Your task to perform on an android device: Do I have any events today? Image 0: 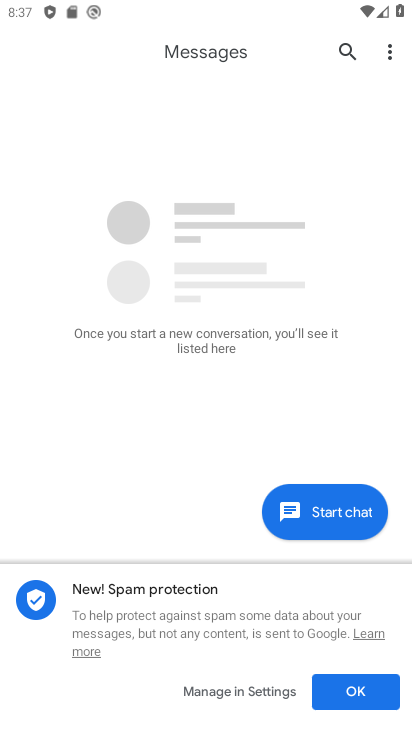
Step 0: press back button
Your task to perform on an android device: Do I have any events today? Image 1: 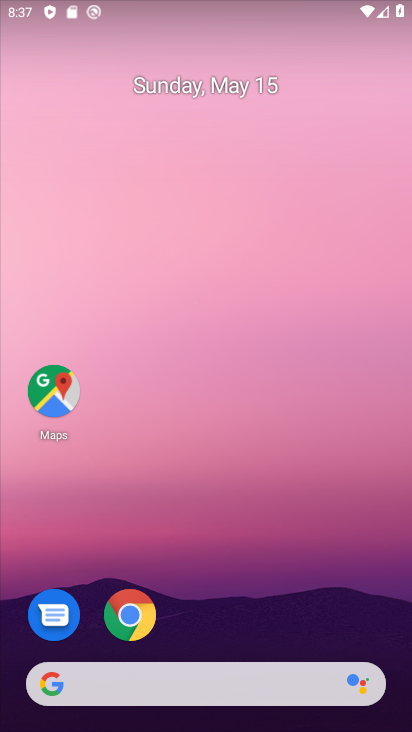
Step 1: drag from (259, 564) to (229, 5)
Your task to perform on an android device: Do I have any events today? Image 2: 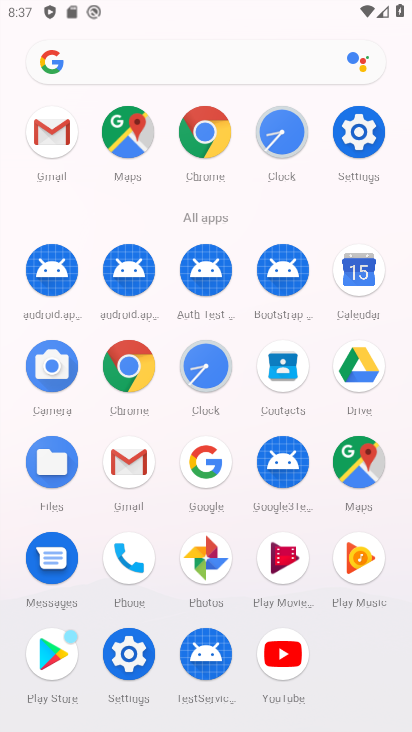
Step 2: drag from (9, 599) to (9, 278)
Your task to perform on an android device: Do I have any events today? Image 3: 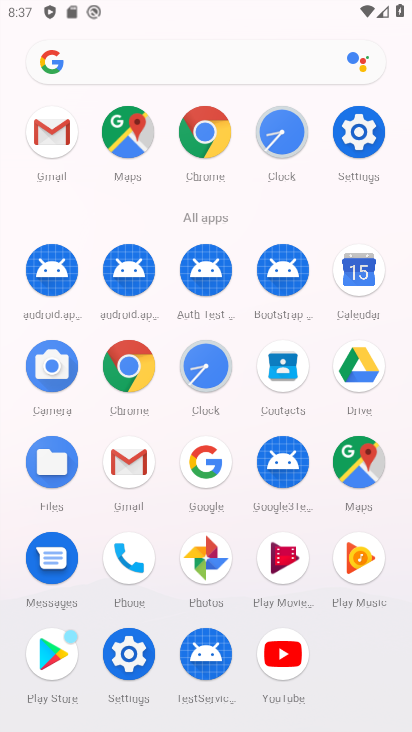
Step 3: drag from (8, 351) to (8, 286)
Your task to perform on an android device: Do I have any events today? Image 4: 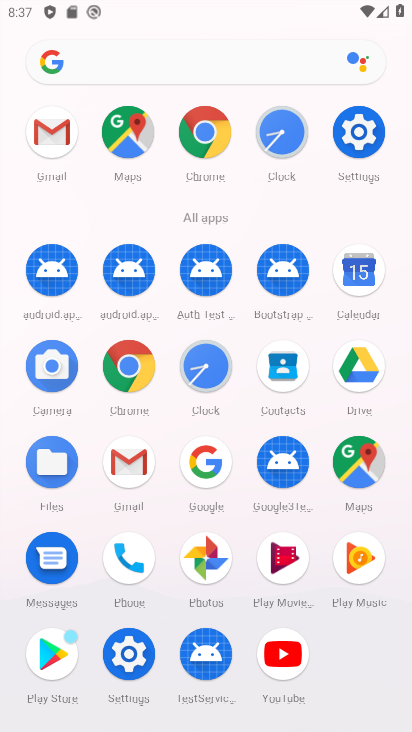
Step 4: click (359, 266)
Your task to perform on an android device: Do I have any events today? Image 5: 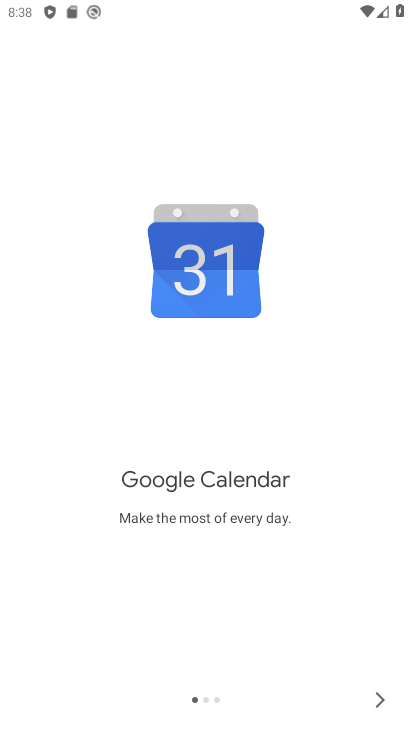
Step 5: click (379, 695)
Your task to perform on an android device: Do I have any events today? Image 6: 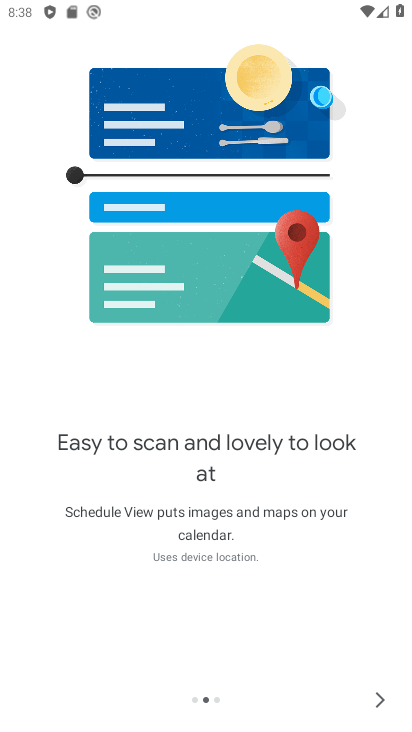
Step 6: click (380, 695)
Your task to perform on an android device: Do I have any events today? Image 7: 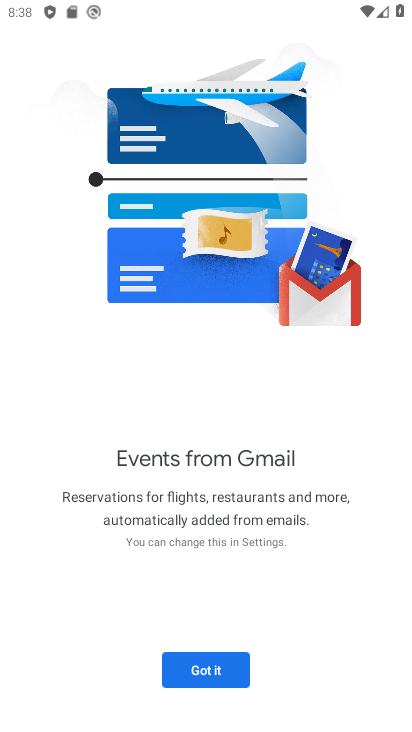
Step 7: click (180, 665)
Your task to perform on an android device: Do I have any events today? Image 8: 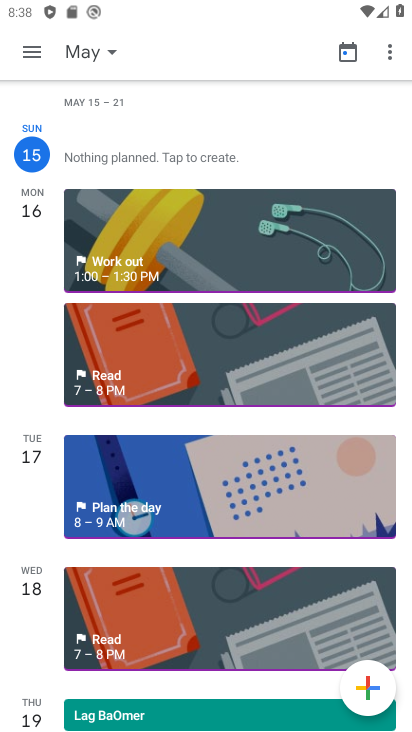
Step 8: click (28, 145)
Your task to perform on an android device: Do I have any events today? Image 9: 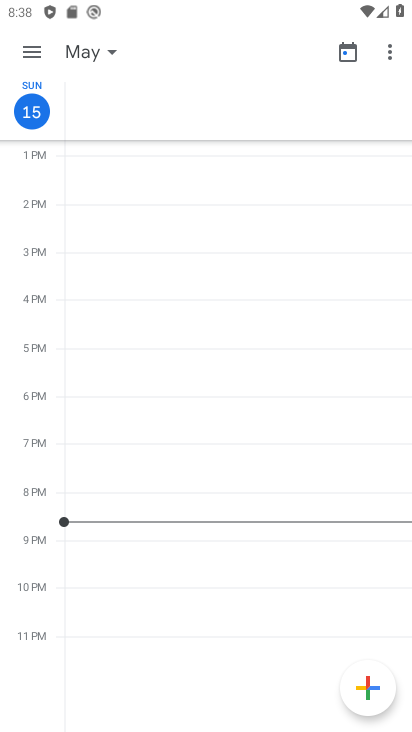
Step 9: task complete